Your task to perform on an android device: turn off notifications settings in the gmail app Image 0: 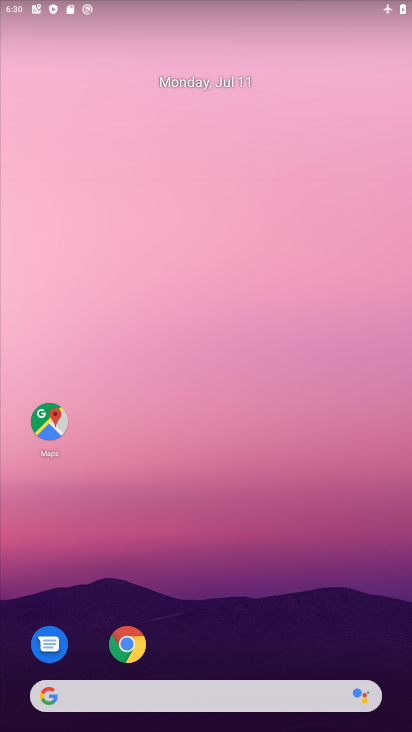
Step 0: drag from (305, 702) to (356, 98)
Your task to perform on an android device: turn off notifications settings in the gmail app Image 1: 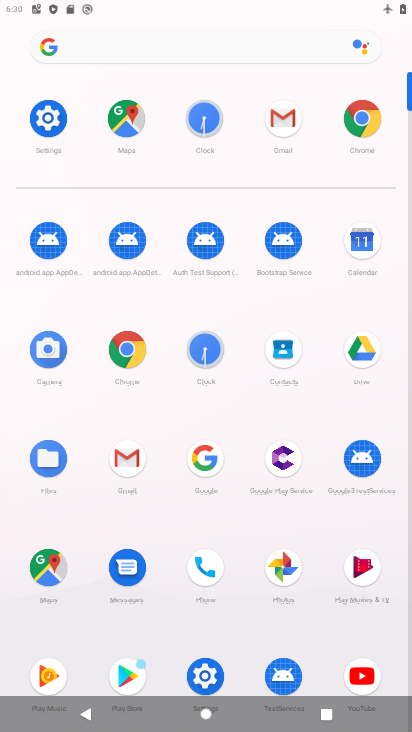
Step 1: click (113, 467)
Your task to perform on an android device: turn off notifications settings in the gmail app Image 2: 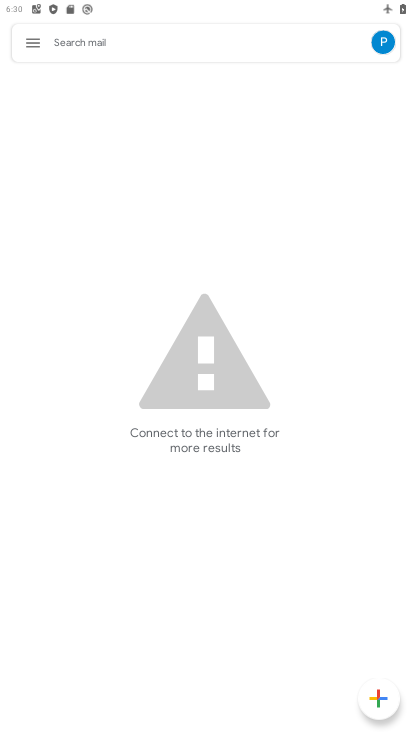
Step 2: click (27, 48)
Your task to perform on an android device: turn off notifications settings in the gmail app Image 3: 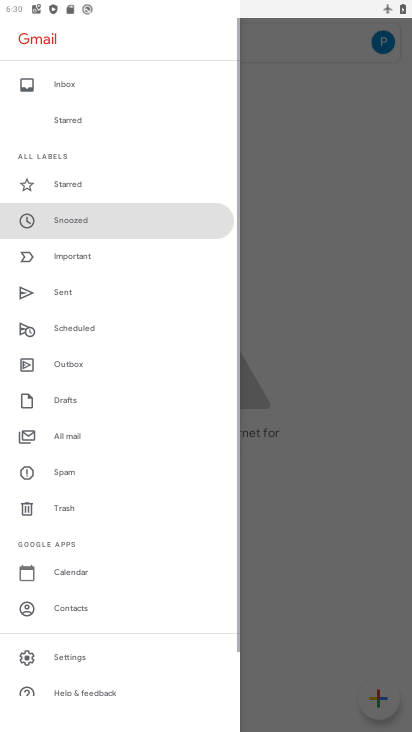
Step 3: click (85, 662)
Your task to perform on an android device: turn off notifications settings in the gmail app Image 4: 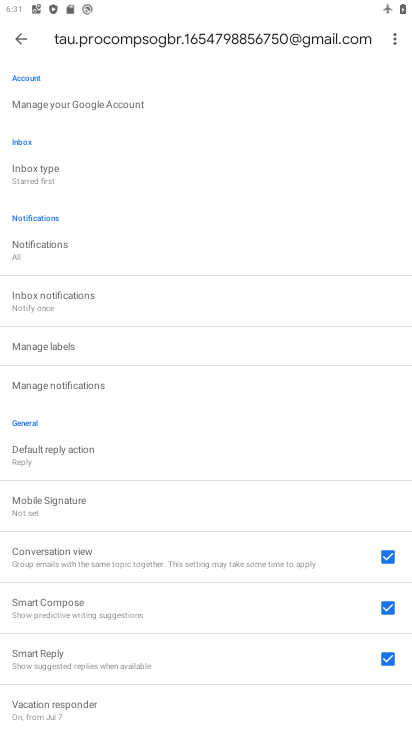
Step 4: click (82, 387)
Your task to perform on an android device: turn off notifications settings in the gmail app Image 5: 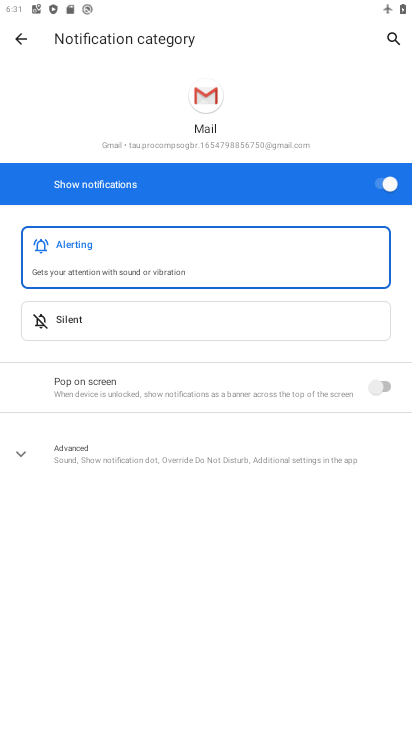
Step 5: click (384, 184)
Your task to perform on an android device: turn off notifications settings in the gmail app Image 6: 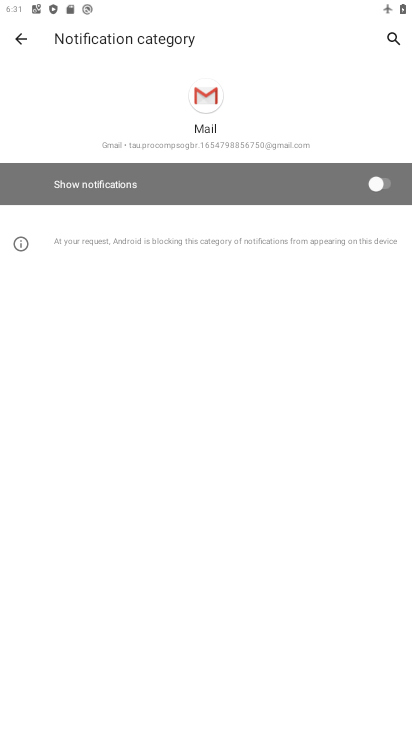
Step 6: task complete